Your task to perform on an android device: Open accessibility settings Image 0: 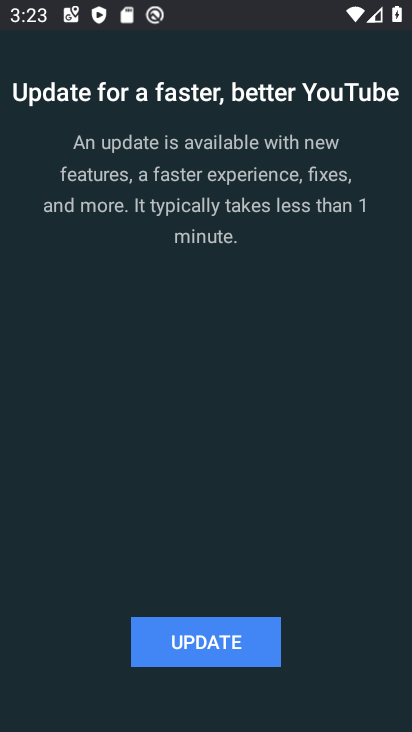
Step 0: press back button
Your task to perform on an android device: Open accessibility settings Image 1: 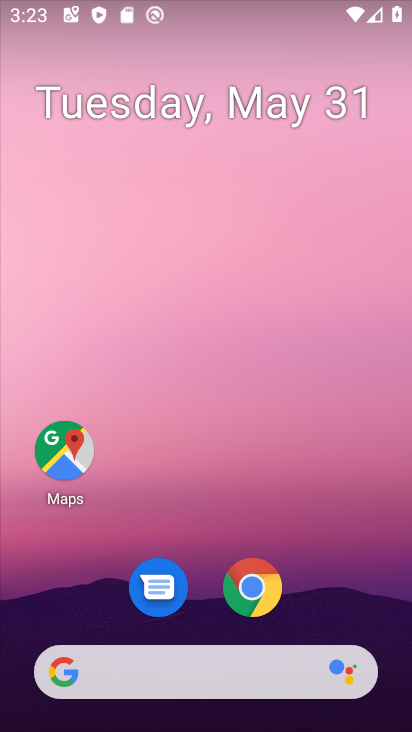
Step 1: drag from (332, 606) to (322, 10)
Your task to perform on an android device: Open accessibility settings Image 2: 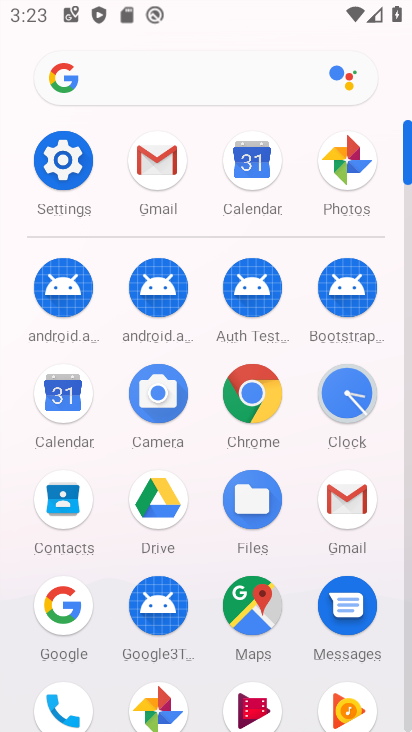
Step 2: click (67, 170)
Your task to perform on an android device: Open accessibility settings Image 3: 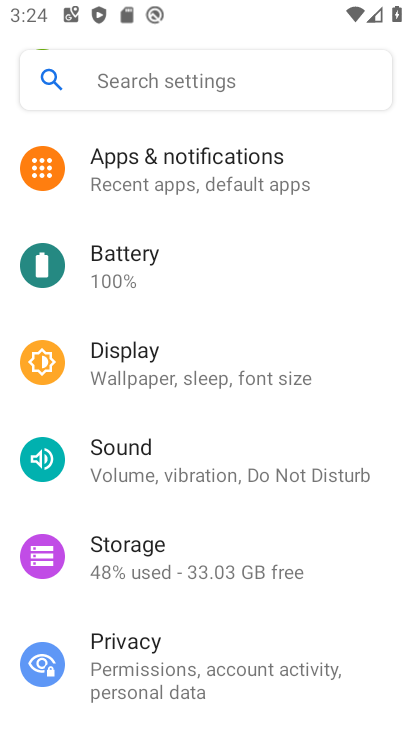
Step 3: drag from (211, 671) to (241, 183)
Your task to perform on an android device: Open accessibility settings Image 4: 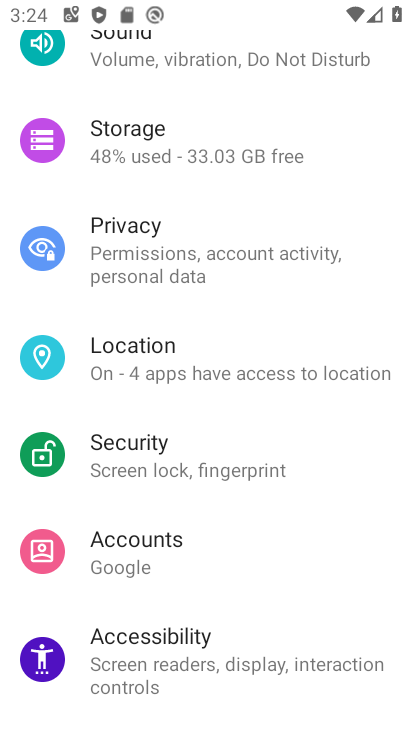
Step 4: click (225, 680)
Your task to perform on an android device: Open accessibility settings Image 5: 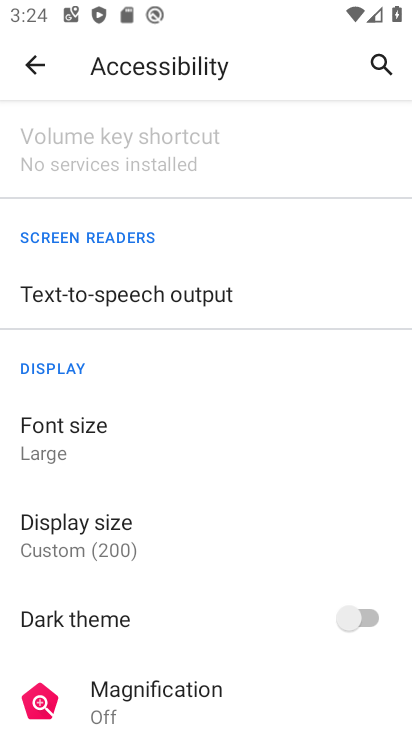
Step 5: task complete